Your task to perform on an android device: change text size in settings app Image 0: 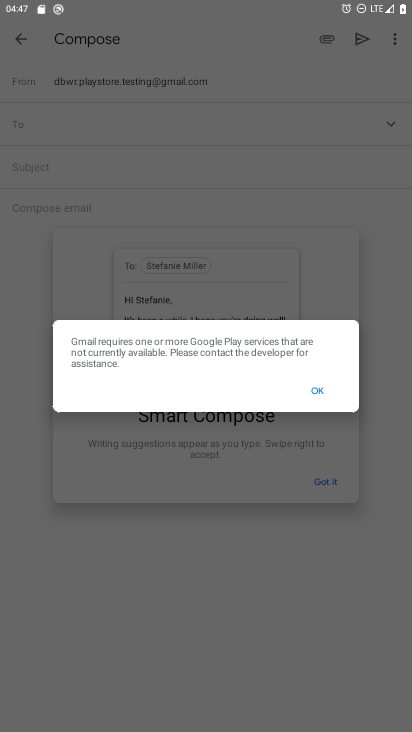
Step 0: press home button
Your task to perform on an android device: change text size in settings app Image 1: 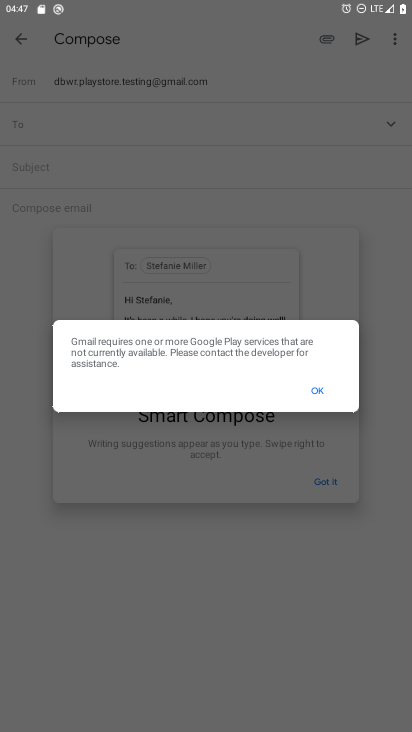
Step 1: press home button
Your task to perform on an android device: change text size in settings app Image 2: 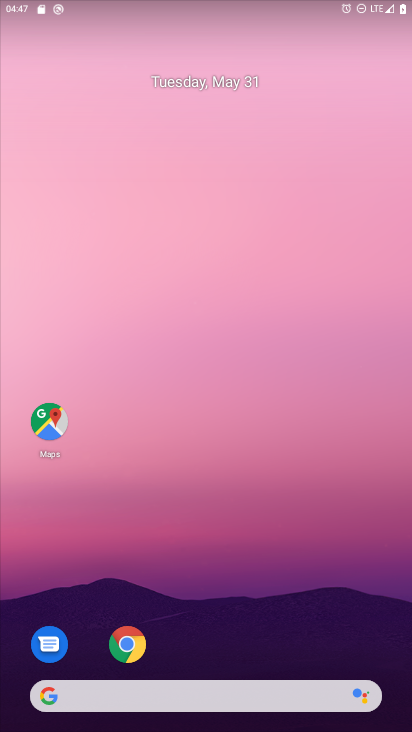
Step 2: drag from (251, 564) to (188, 143)
Your task to perform on an android device: change text size in settings app Image 3: 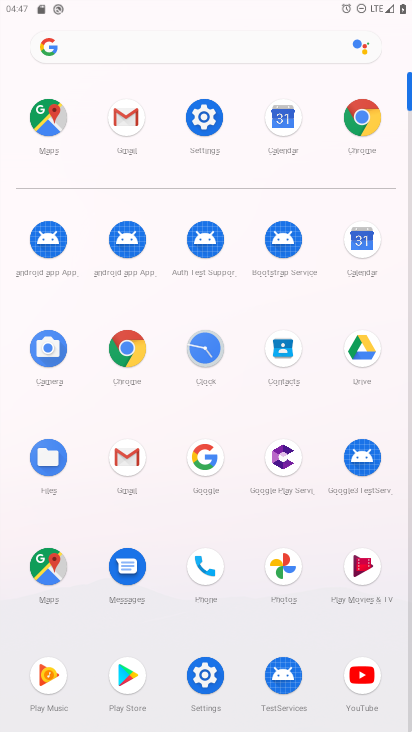
Step 3: click (220, 115)
Your task to perform on an android device: change text size in settings app Image 4: 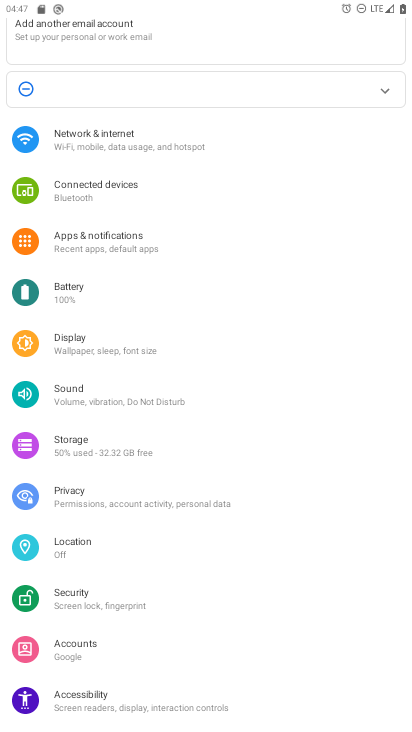
Step 4: click (85, 336)
Your task to perform on an android device: change text size in settings app Image 5: 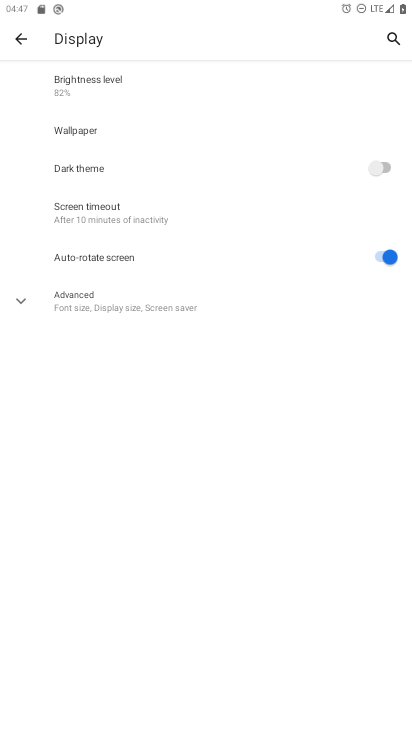
Step 5: click (120, 304)
Your task to perform on an android device: change text size in settings app Image 6: 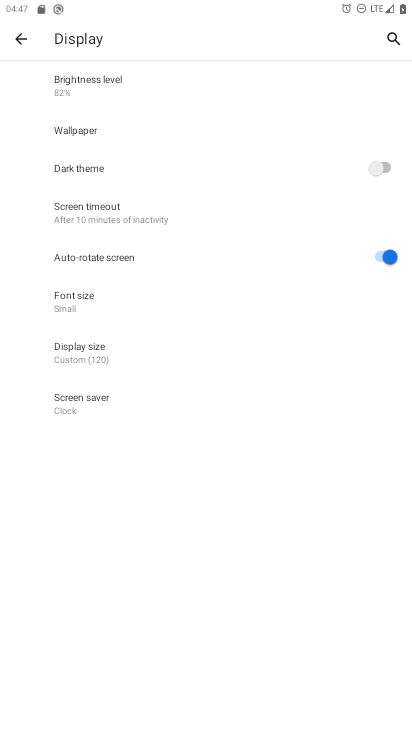
Step 6: click (68, 305)
Your task to perform on an android device: change text size in settings app Image 7: 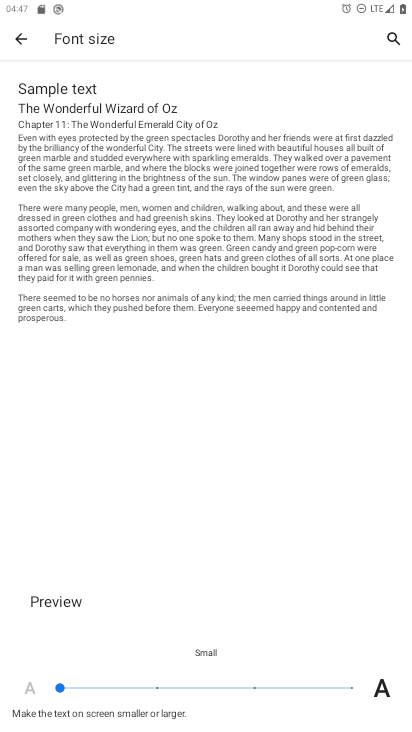
Step 7: click (124, 690)
Your task to perform on an android device: change text size in settings app Image 8: 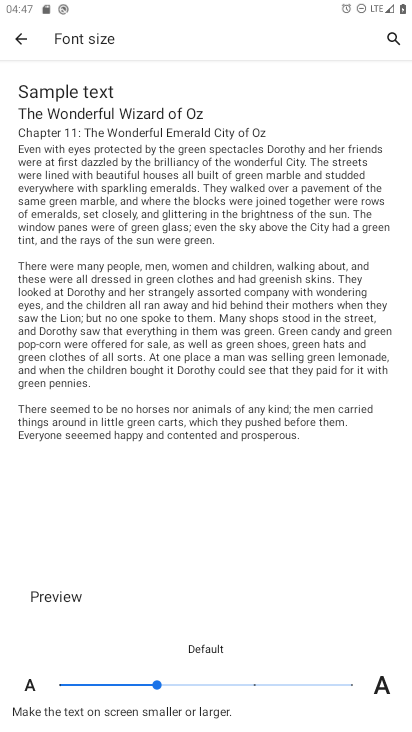
Step 8: task complete